Your task to perform on an android device: Open eBay Image 0: 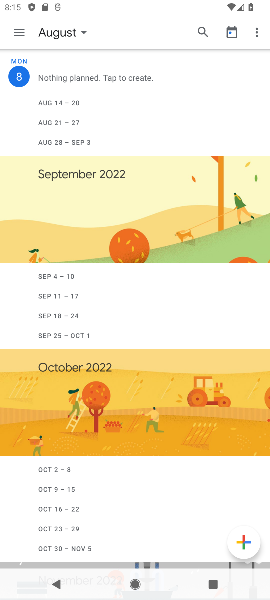
Step 0: press home button
Your task to perform on an android device: Open eBay Image 1: 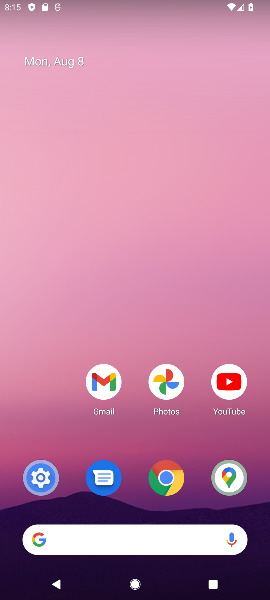
Step 1: click (163, 477)
Your task to perform on an android device: Open eBay Image 2: 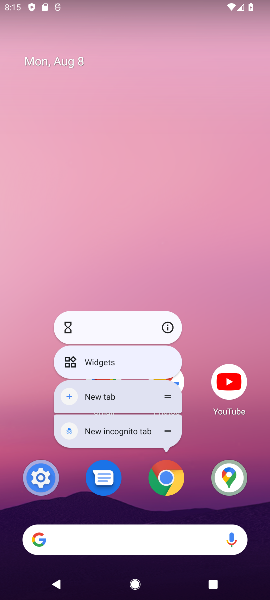
Step 2: click (163, 482)
Your task to perform on an android device: Open eBay Image 3: 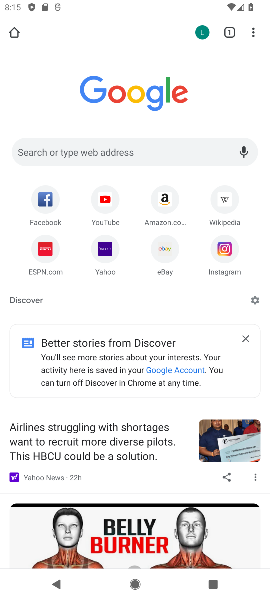
Step 3: click (168, 247)
Your task to perform on an android device: Open eBay Image 4: 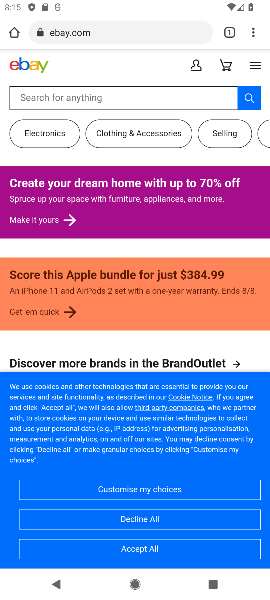
Step 4: click (146, 547)
Your task to perform on an android device: Open eBay Image 5: 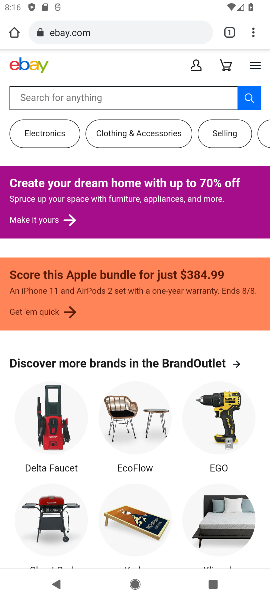
Step 5: task complete